Your task to perform on an android device: see creations saved in the google photos Image 0: 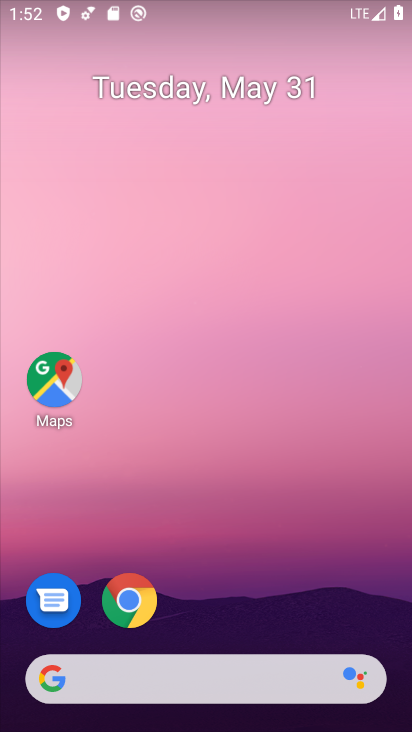
Step 0: drag from (190, 631) to (231, 241)
Your task to perform on an android device: see creations saved in the google photos Image 1: 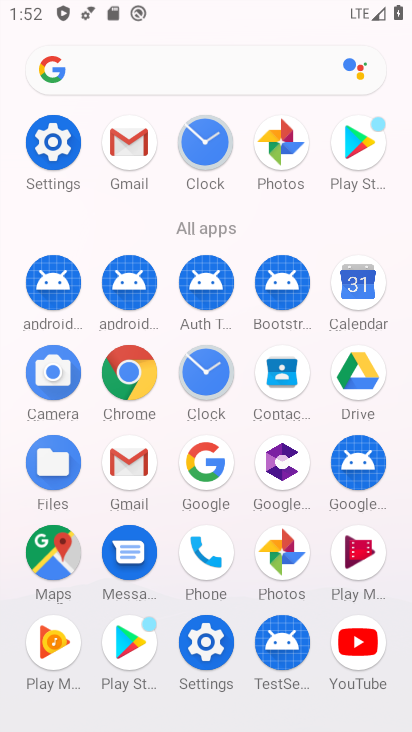
Step 1: click (281, 550)
Your task to perform on an android device: see creations saved in the google photos Image 2: 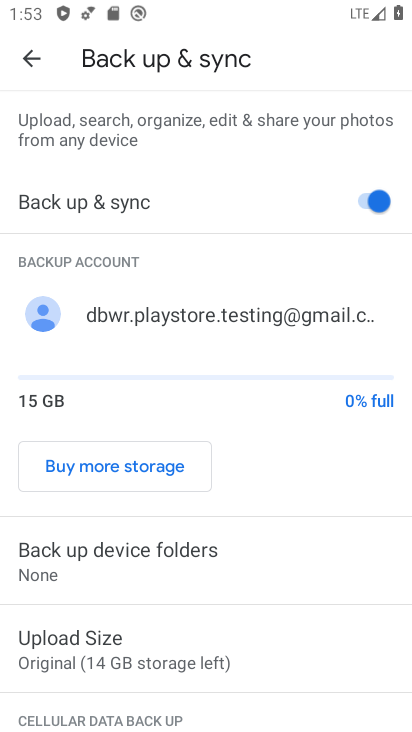
Step 2: drag from (158, 649) to (178, 385)
Your task to perform on an android device: see creations saved in the google photos Image 3: 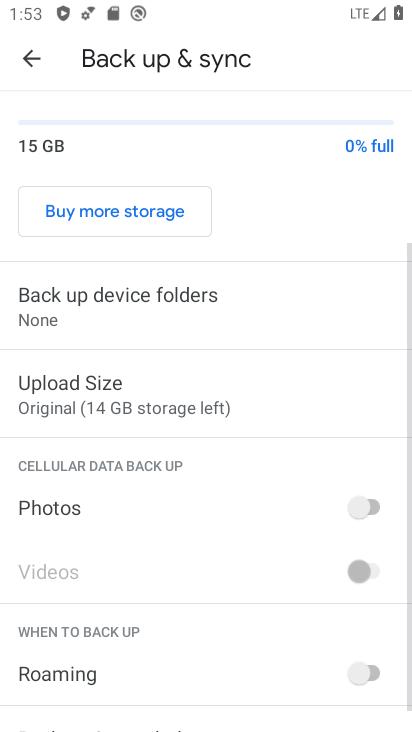
Step 3: click (35, 57)
Your task to perform on an android device: see creations saved in the google photos Image 4: 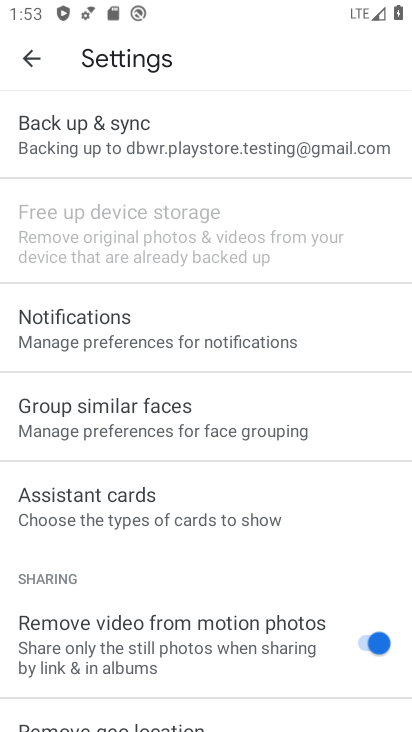
Step 4: click (12, 60)
Your task to perform on an android device: see creations saved in the google photos Image 5: 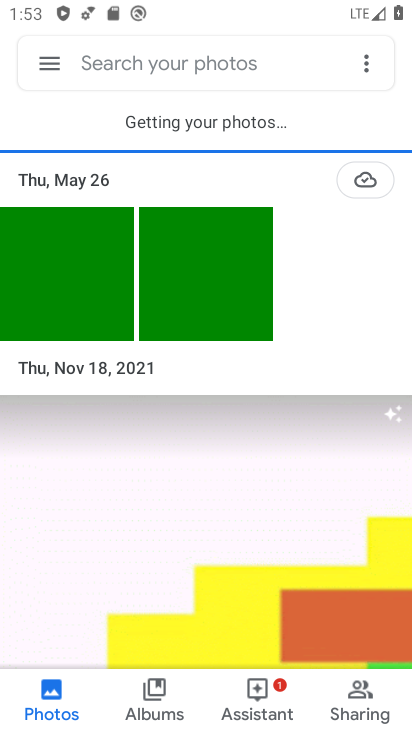
Step 5: click (149, 62)
Your task to perform on an android device: see creations saved in the google photos Image 6: 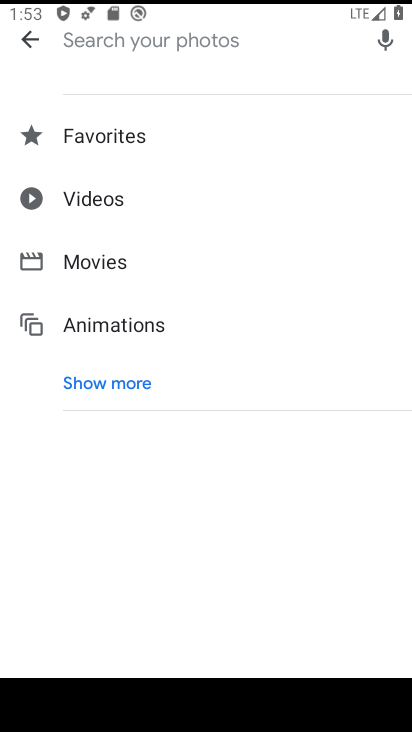
Step 6: click (140, 377)
Your task to perform on an android device: see creations saved in the google photos Image 7: 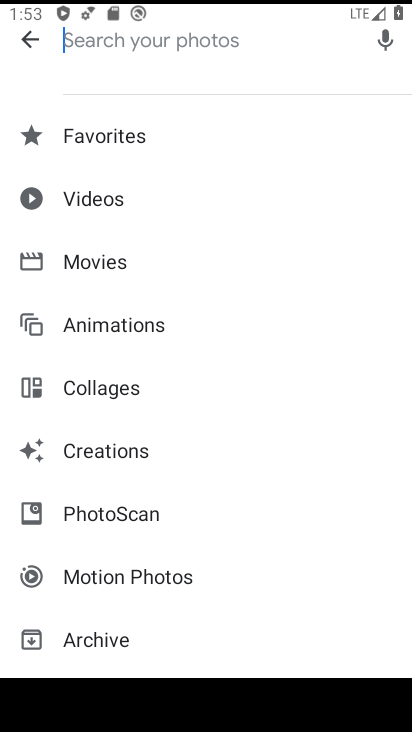
Step 7: click (116, 447)
Your task to perform on an android device: see creations saved in the google photos Image 8: 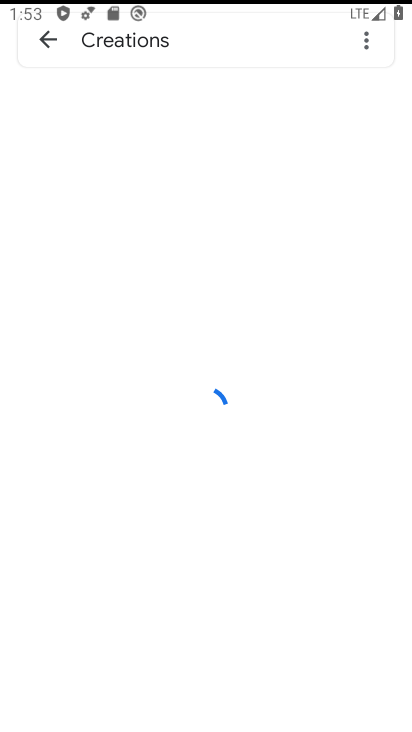
Step 8: task complete